Your task to perform on an android device: Go to Android settings Image 0: 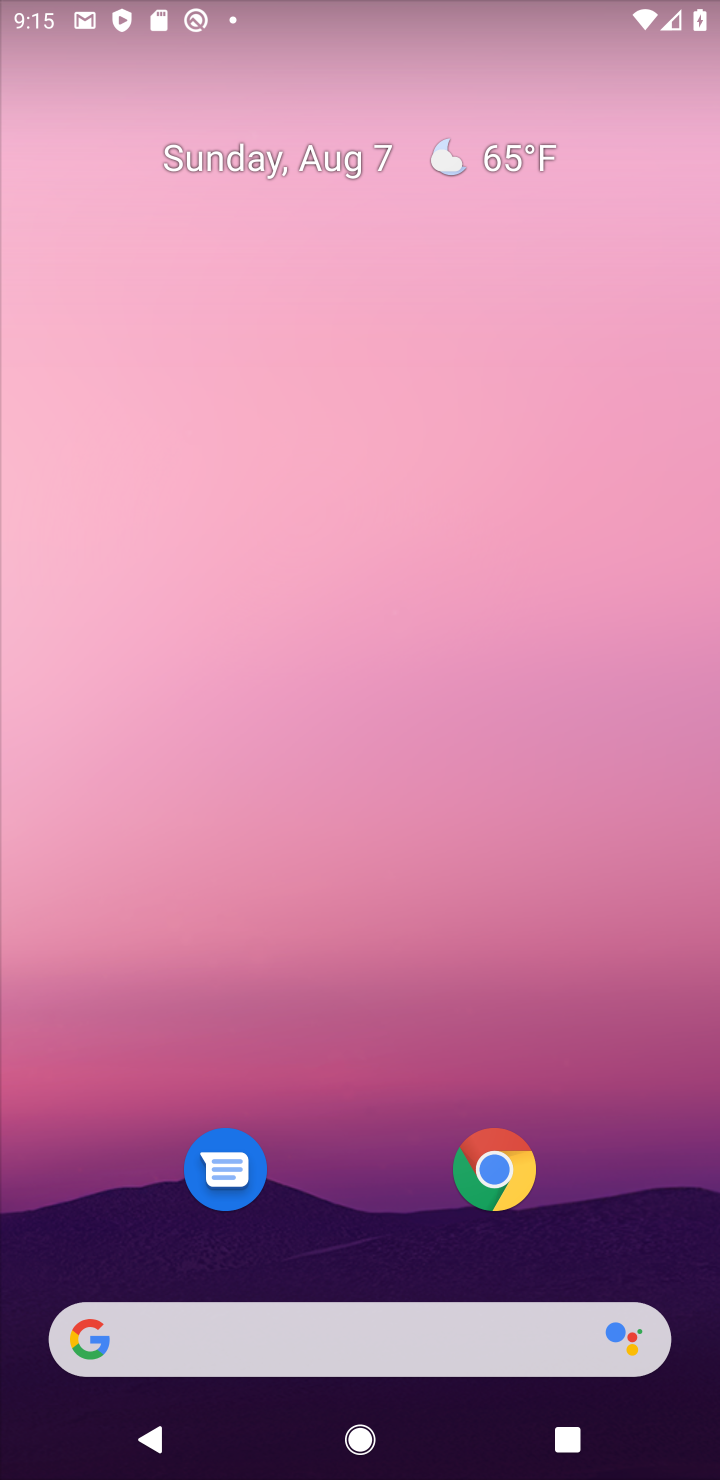
Step 0: drag from (466, 1317) to (358, 14)
Your task to perform on an android device: Go to Android settings Image 1: 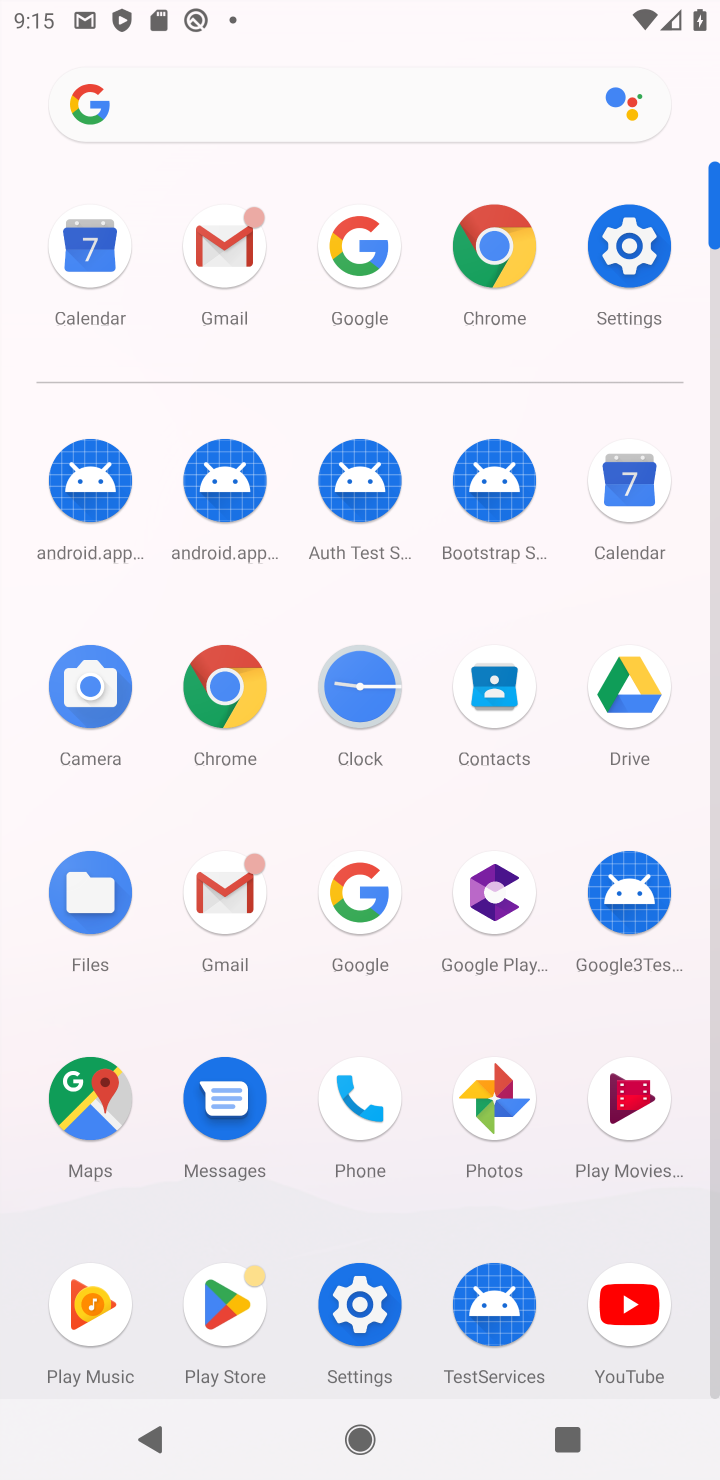
Step 1: click (635, 248)
Your task to perform on an android device: Go to Android settings Image 2: 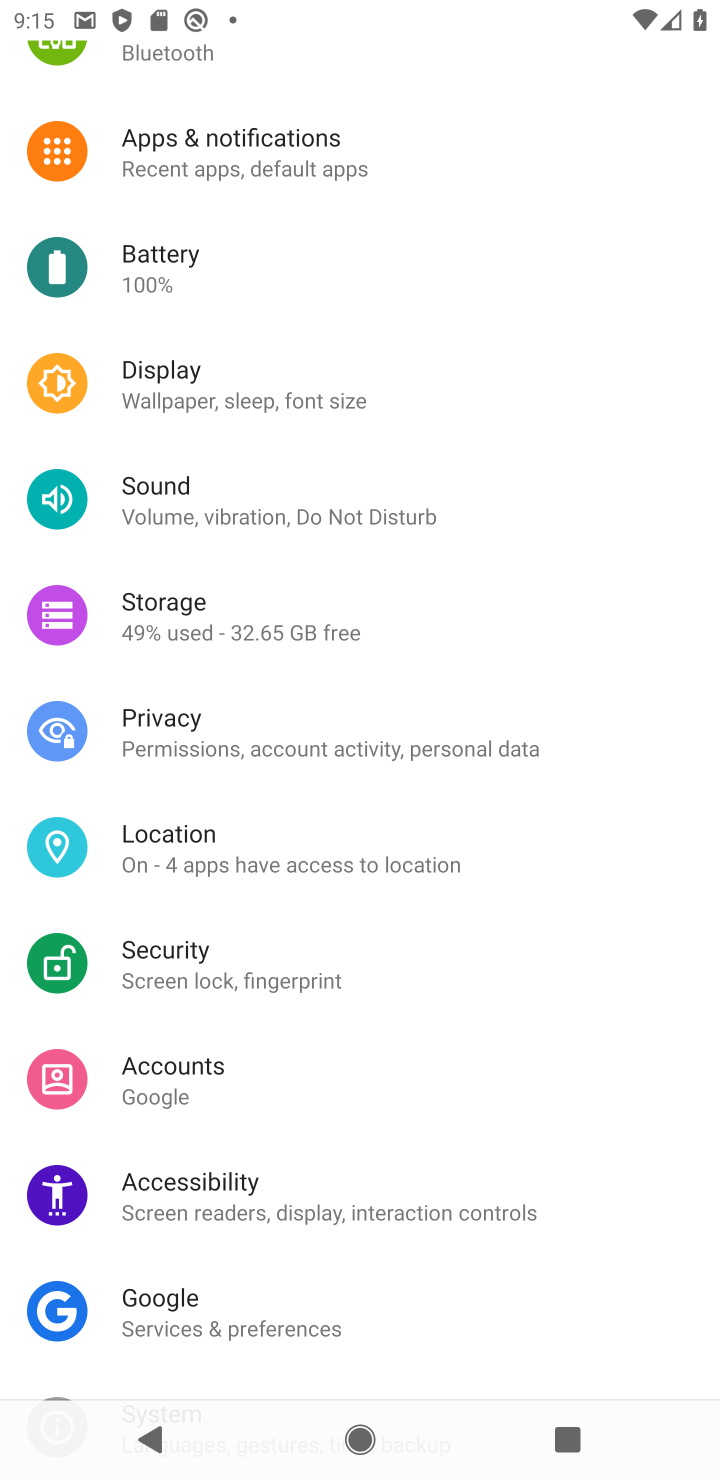
Step 2: task complete